Your task to perform on an android device: toggle show notifications on the lock screen Image 0: 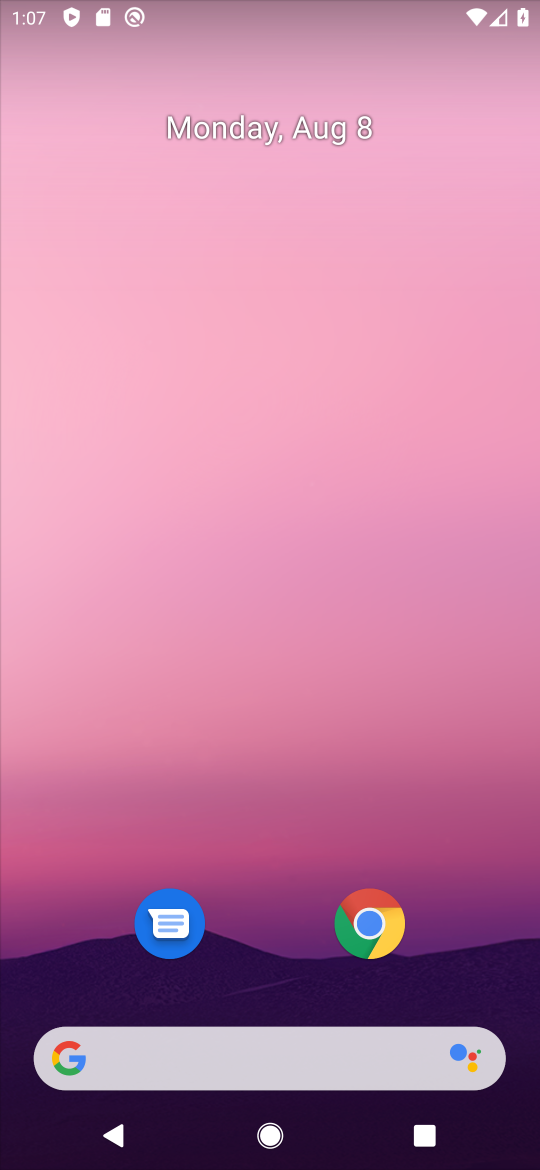
Step 0: drag from (265, 845) to (325, 192)
Your task to perform on an android device: toggle show notifications on the lock screen Image 1: 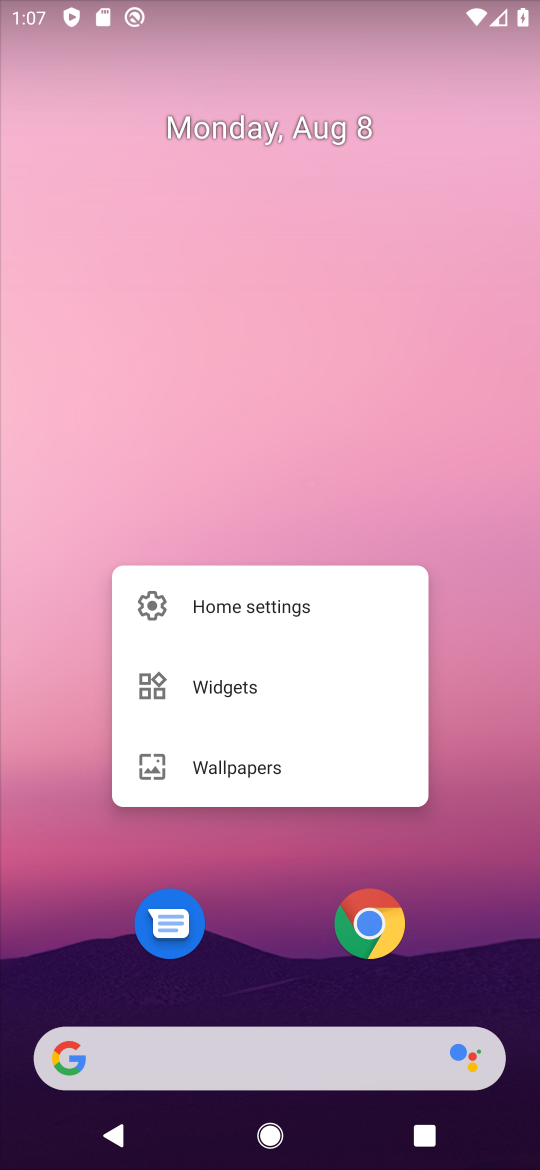
Step 1: click (468, 845)
Your task to perform on an android device: toggle show notifications on the lock screen Image 2: 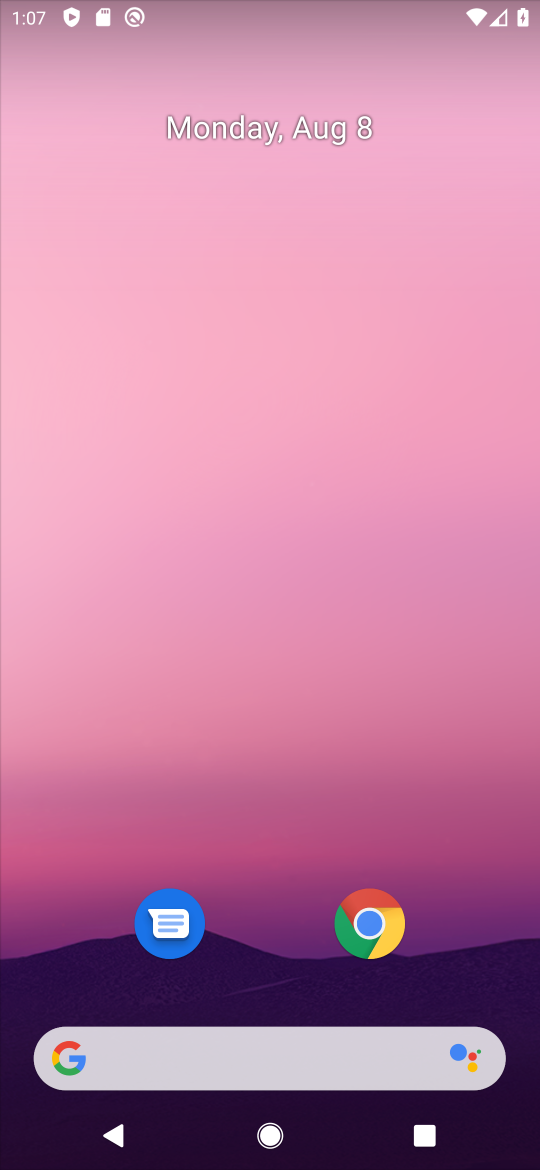
Step 2: drag from (303, 699) to (412, 254)
Your task to perform on an android device: toggle show notifications on the lock screen Image 3: 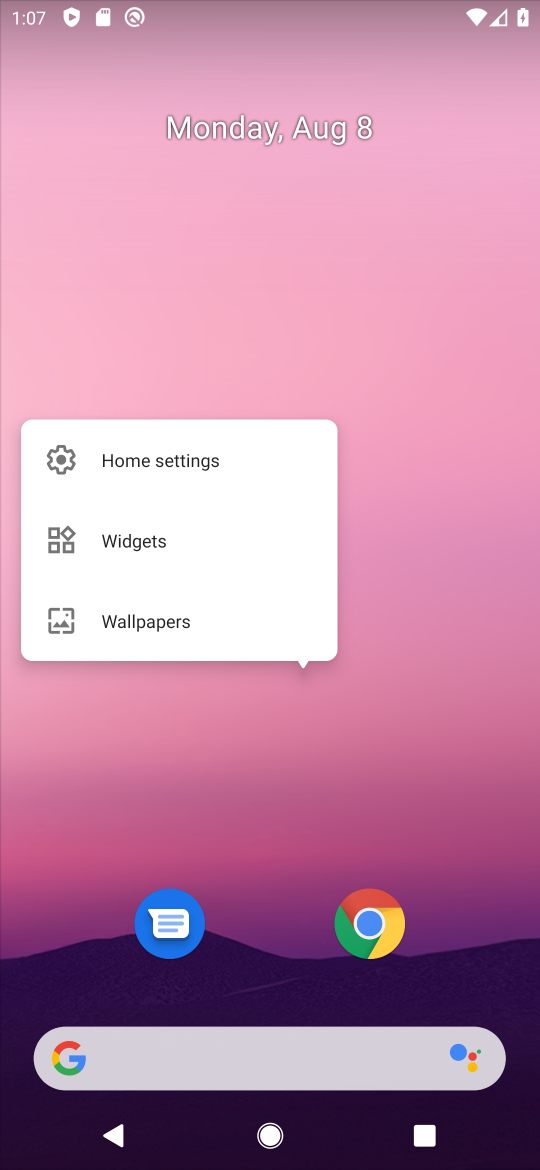
Step 3: click (389, 690)
Your task to perform on an android device: toggle show notifications on the lock screen Image 4: 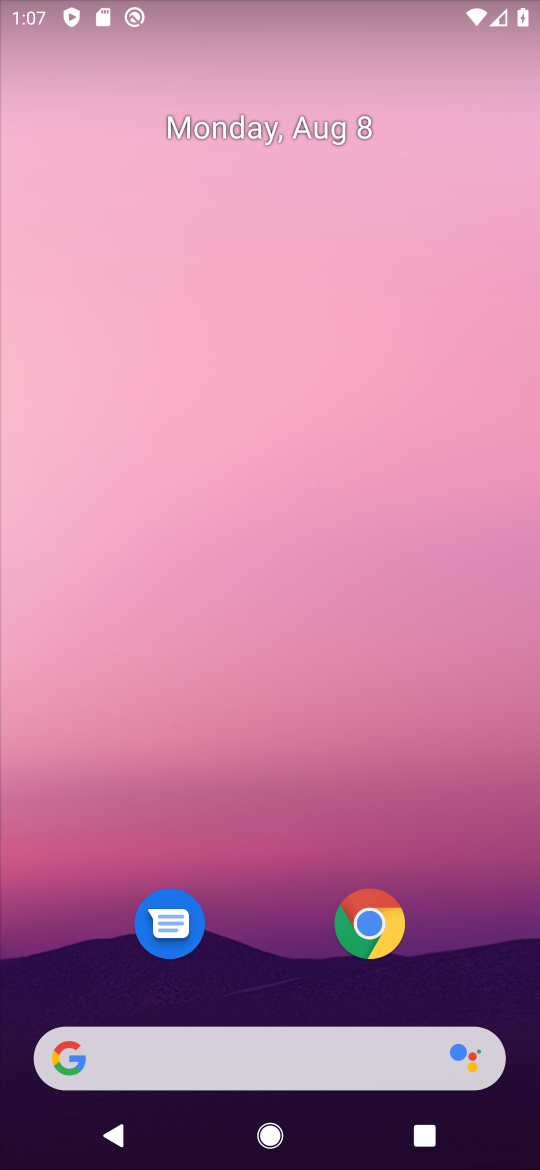
Step 4: drag from (251, 737) to (289, 285)
Your task to perform on an android device: toggle show notifications on the lock screen Image 5: 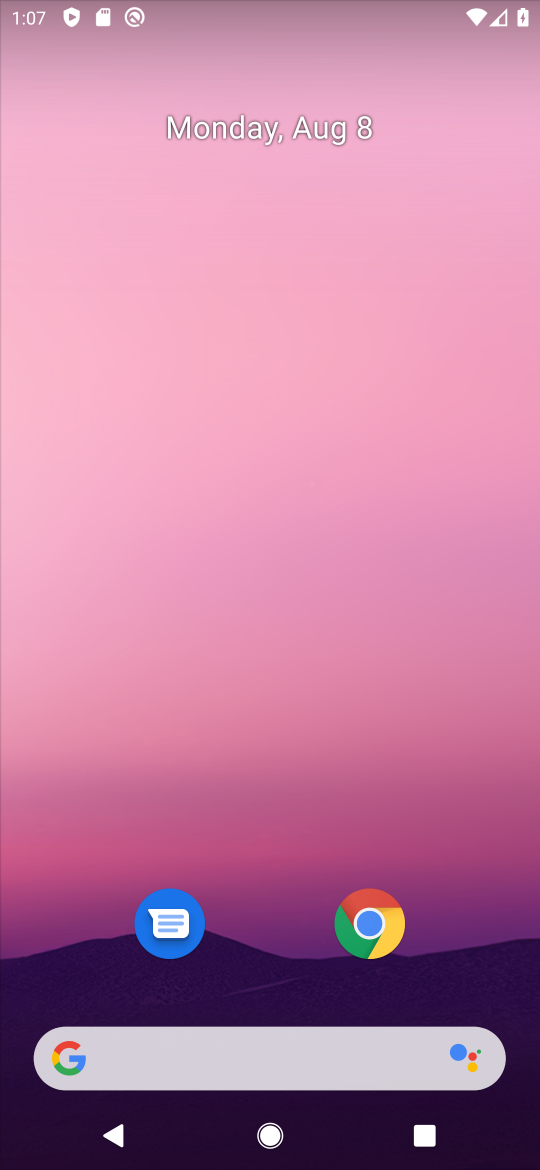
Step 5: drag from (323, 561) to (309, 276)
Your task to perform on an android device: toggle show notifications on the lock screen Image 6: 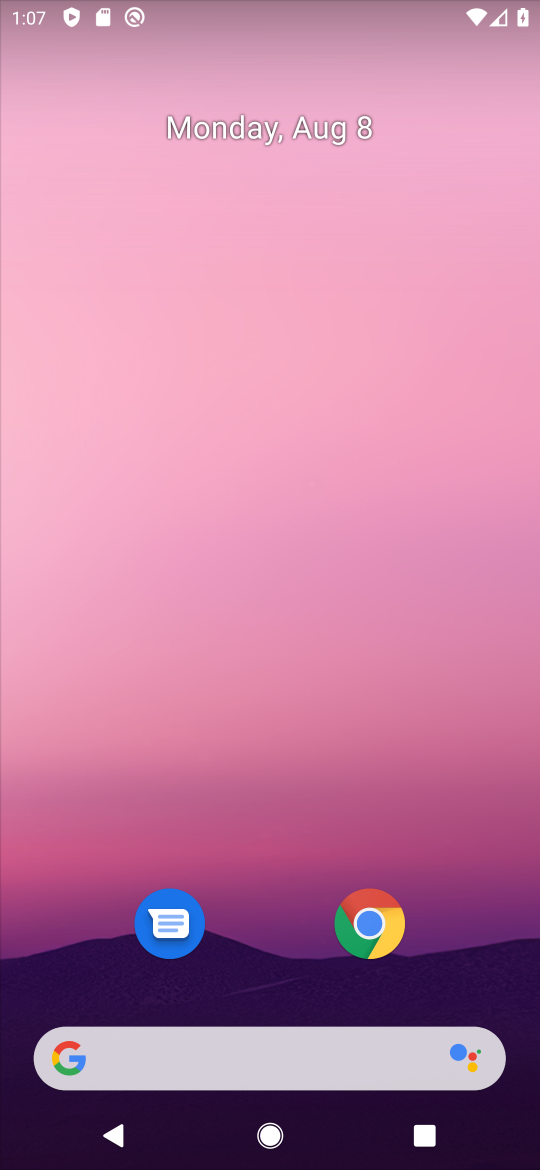
Step 6: drag from (265, 879) to (246, 314)
Your task to perform on an android device: toggle show notifications on the lock screen Image 7: 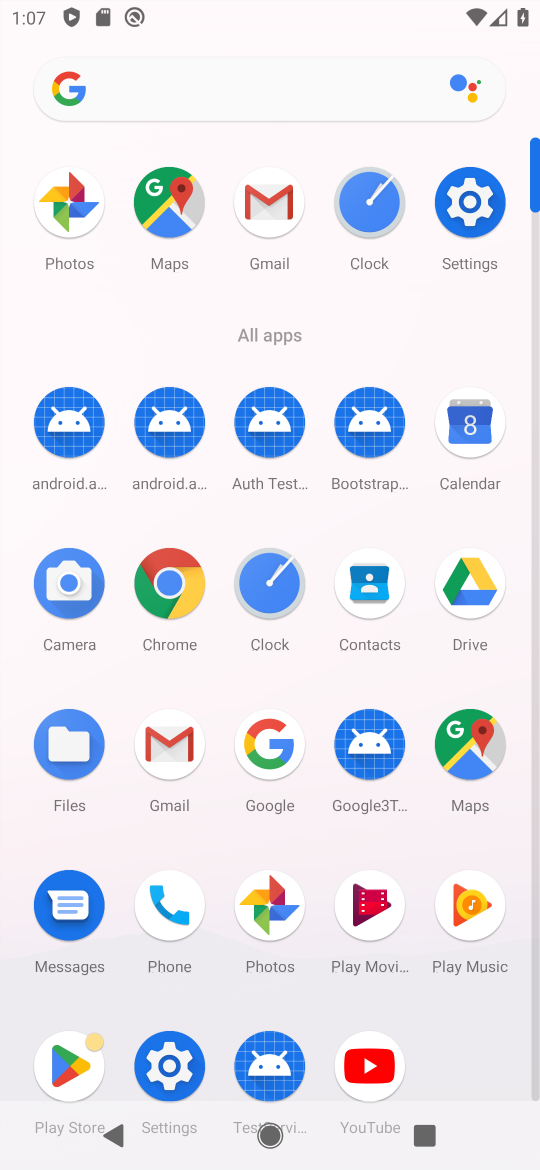
Step 7: click (462, 242)
Your task to perform on an android device: toggle show notifications on the lock screen Image 8: 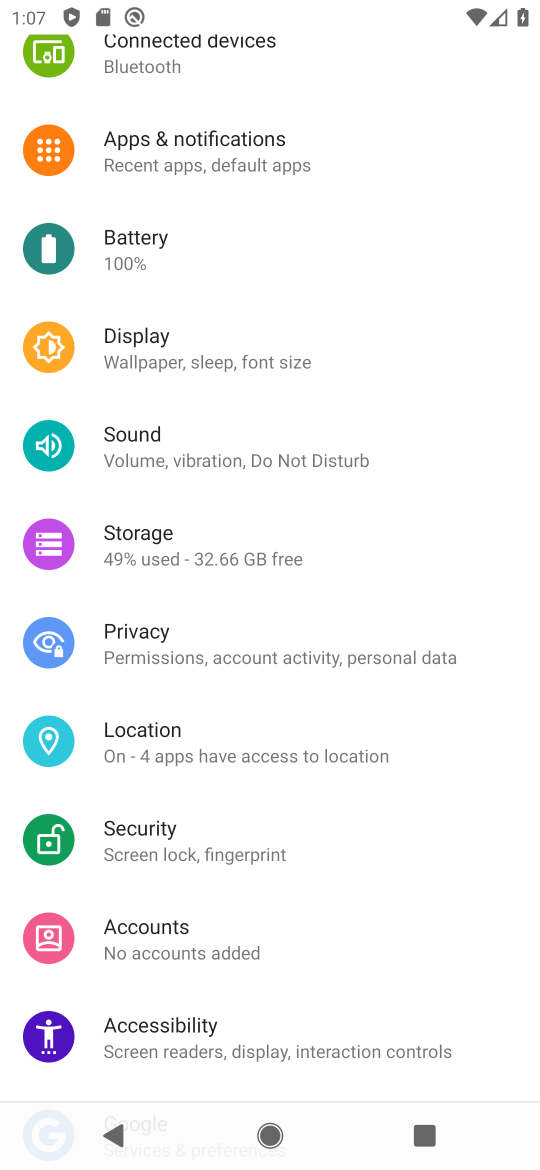
Step 8: task complete